Your task to perform on an android device: Open network settings Image 0: 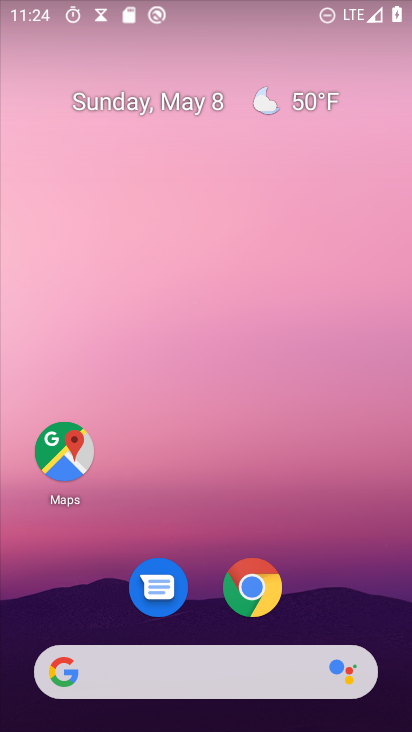
Step 0: drag from (359, 509) to (274, 130)
Your task to perform on an android device: Open network settings Image 1: 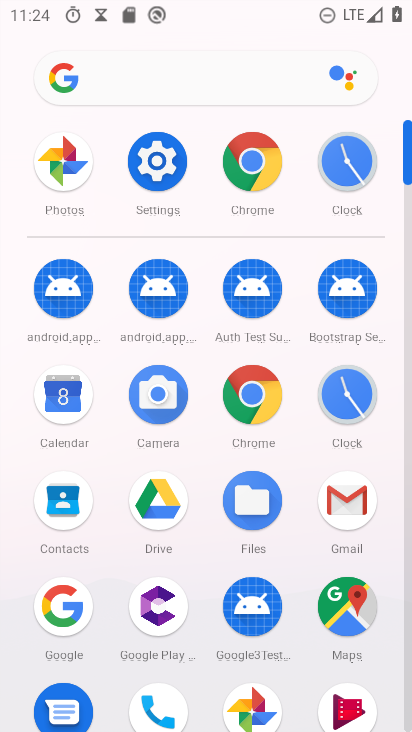
Step 1: click (167, 155)
Your task to perform on an android device: Open network settings Image 2: 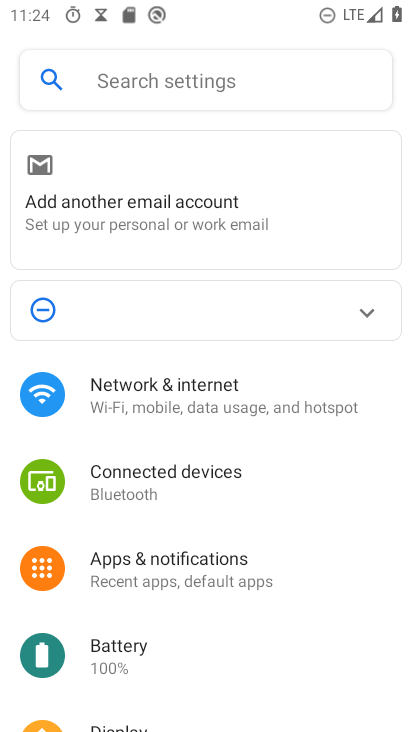
Step 2: click (213, 385)
Your task to perform on an android device: Open network settings Image 3: 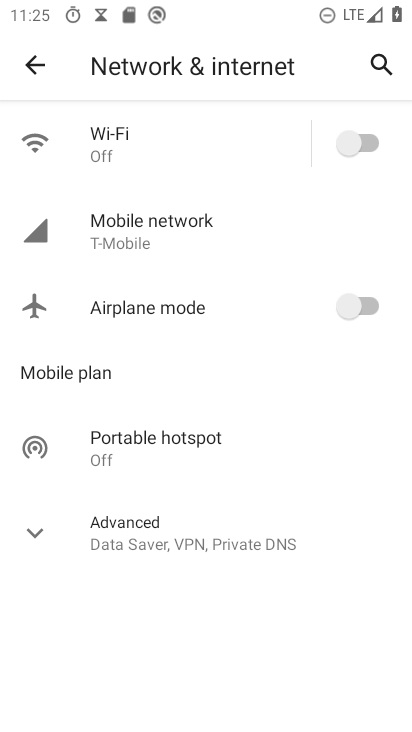
Step 3: click (186, 227)
Your task to perform on an android device: Open network settings Image 4: 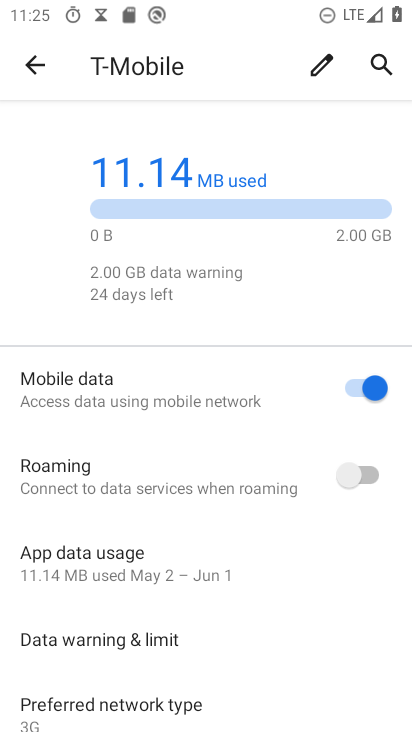
Step 4: task complete